Your task to perform on an android device: Open the calendar and show me this week's events? Image 0: 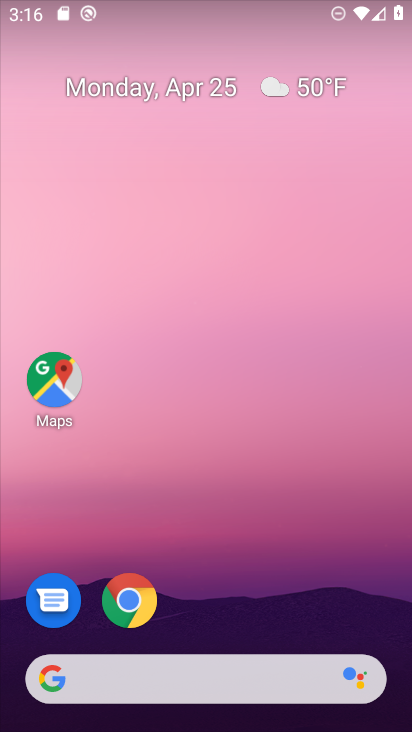
Step 0: drag from (265, 647) to (247, 33)
Your task to perform on an android device: Open the calendar and show me this week's events? Image 1: 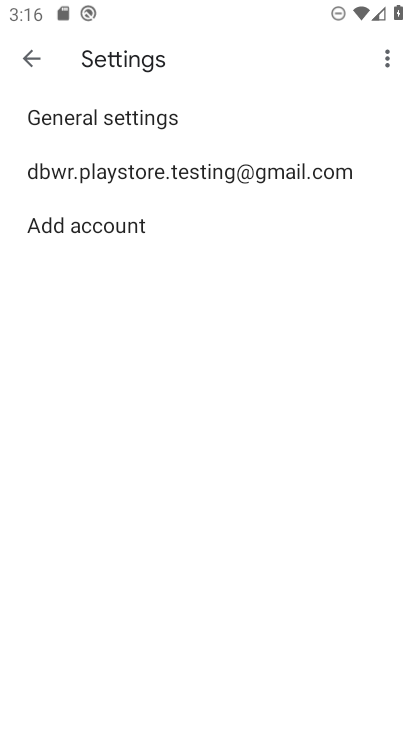
Step 1: press home button
Your task to perform on an android device: Open the calendar and show me this week's events? Image 2: 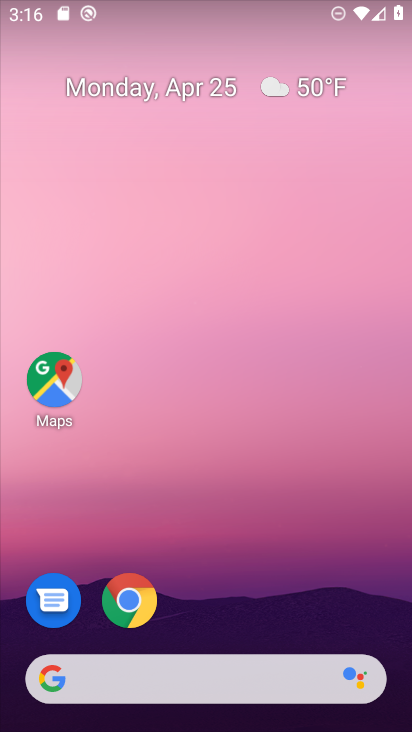
Step 2: drag from (235, 657) to (411, 168)
Your task to perform on an android device: Open the calendar and show me this week's events? Image 3: 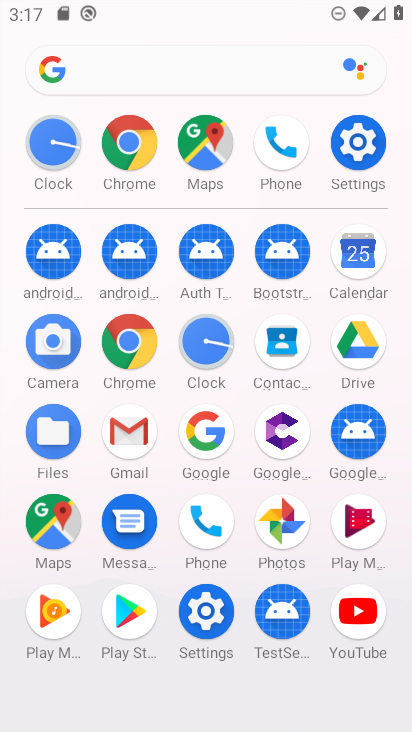
Step 3: click (356, 254)
Your task to perform on an android device: Open the calendar and show me this week's events? Image 4: 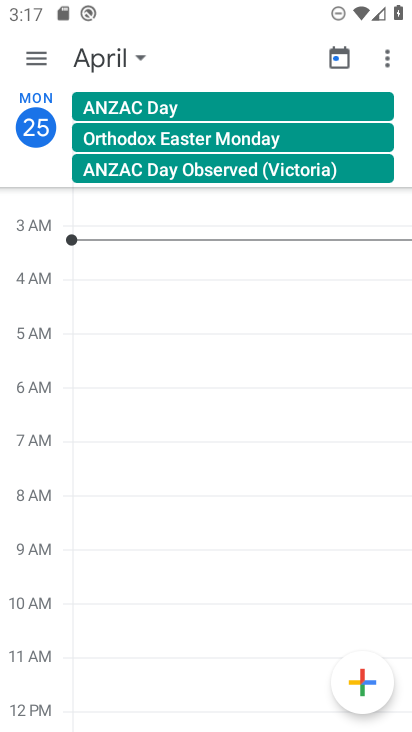
Step 4: click (36, 66)
Your task to perform on an android device: Open the calendar and show me this week's events? Image 5: 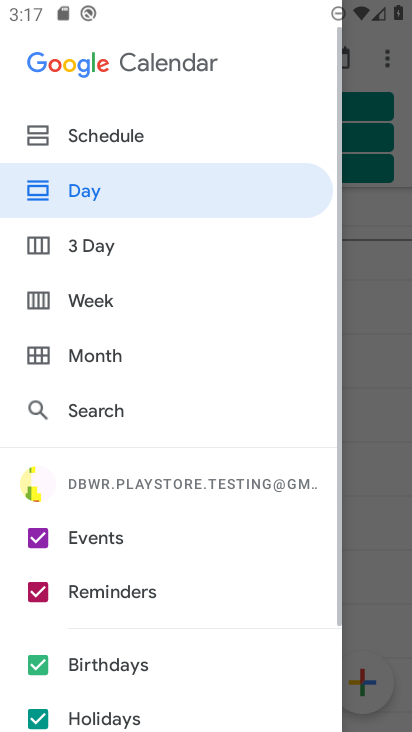
Step 5: click (112, 293)
Your task to perform on an android device: Open the calendar and show me this week's events? Image 6: 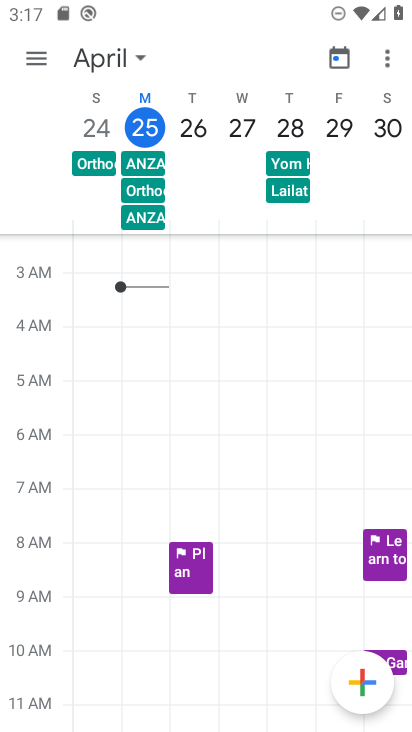
Step 6: task complete